Your task to perform on an android device: Open CNN.com Image 0: 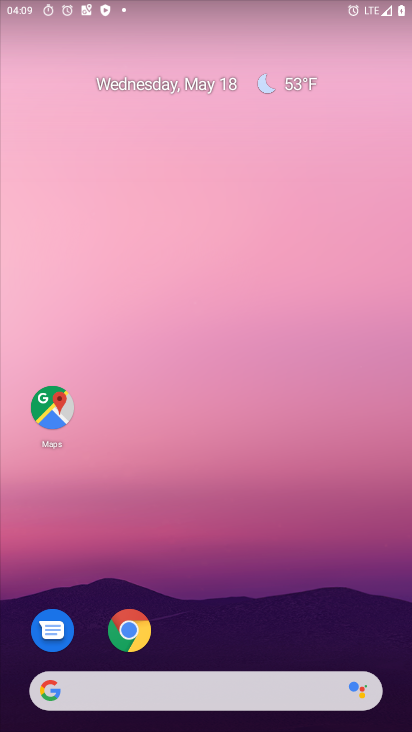
Step 0: click (128, 634)
Your task to perform on an android device: Open CNN.com Image 1: 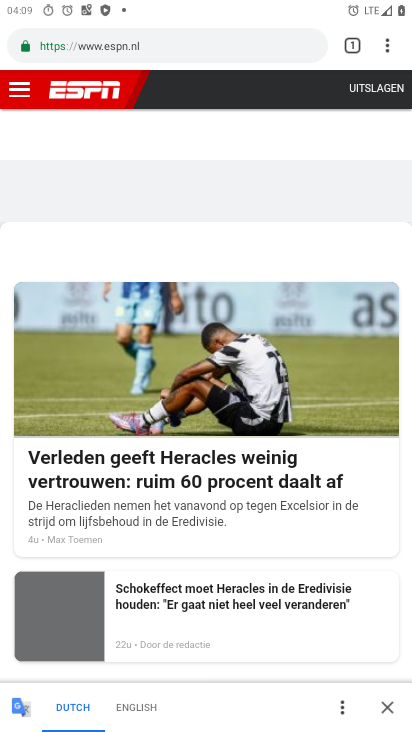
Step 1: task complete